Your task to perform on an android device: turn off wifi Image 0: 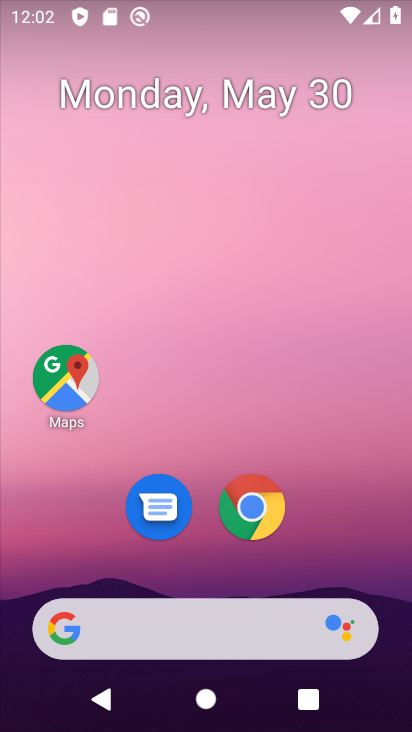
Step 0: drag from (262, 10) to (293, 560)
Your task to perform on an android device: turn off wifi Image 1: 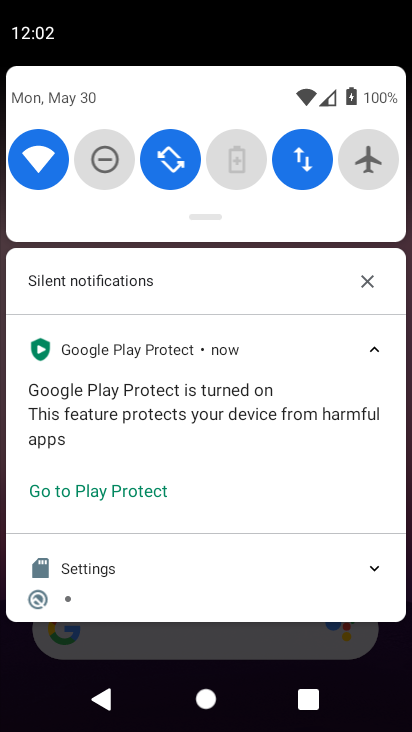
Step 1: click (43, 154)
Your task to perform on an android device: turn off wifi Image 2: 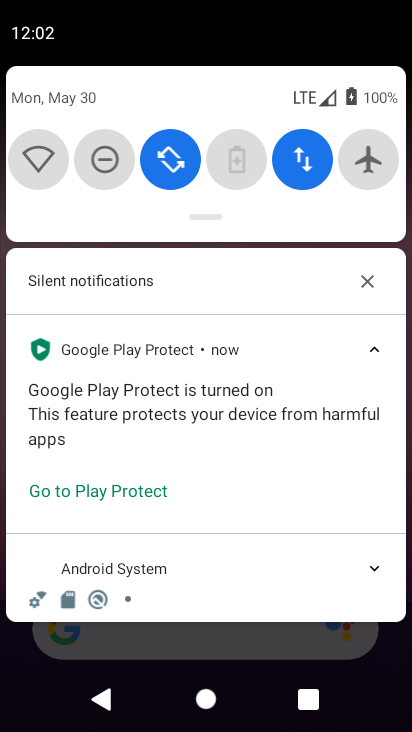
Step 2: task complete